Your task to perform on an android device: set an alarm Image 0: 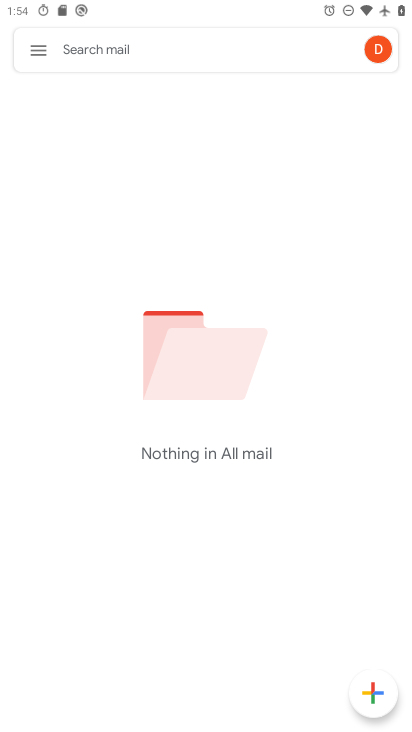
Step 0: press home button
Your task to perform on an android device: set an alarm Image 1: 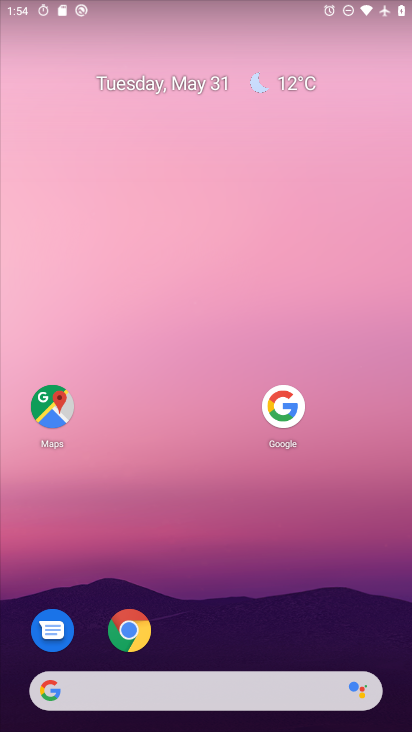
Step 1: drag from (162, 683) to (333, 76)
Your task to perform on an android device: set an alarm Image 2: 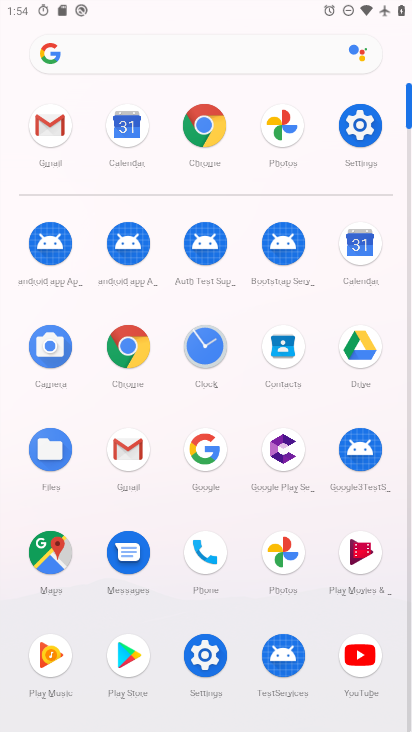
Step 2: click (206, 347)
Your task to perform on an android device: set an alarm Image 3: 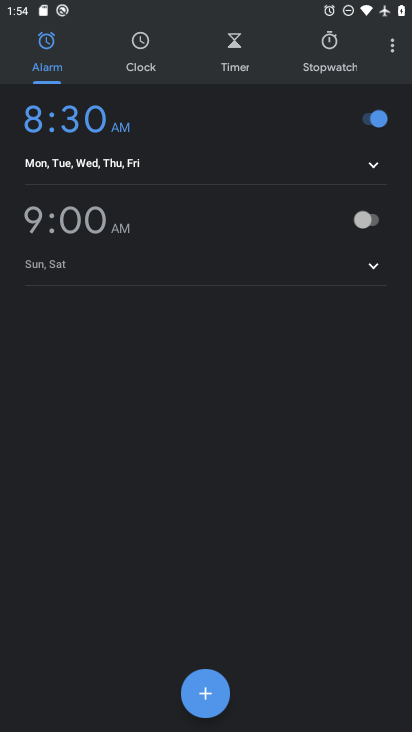
Step 3: click (376, 221)
Your task to perform on an android device: set an alarm Image 4: 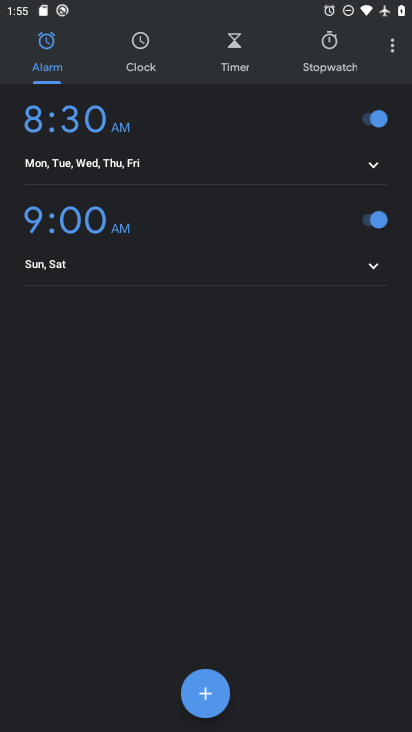
Step 4: task complete